Your task to perform on an android device: turn off sleep mode Image 0: 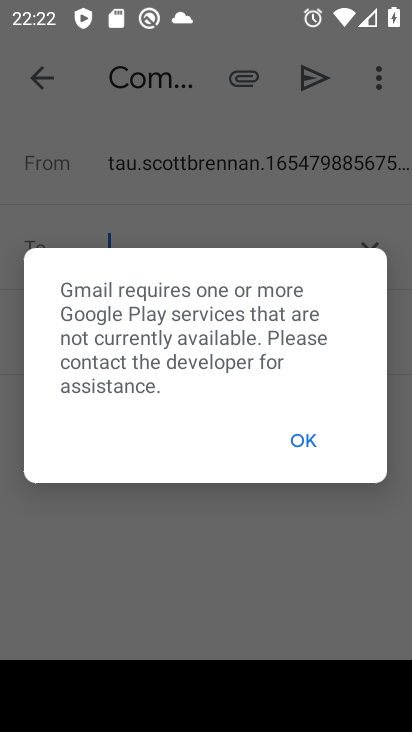
Step 0: press home button
Your task to perform on an android device: turn off sleep mode Image 1: 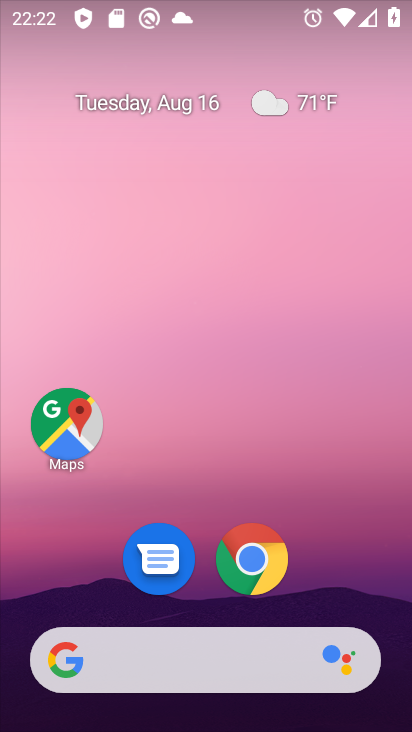
Step 1: drag from (180, 667) to (241, 63)
Your task to perform on an android device: turn off sleep mode Image 2: 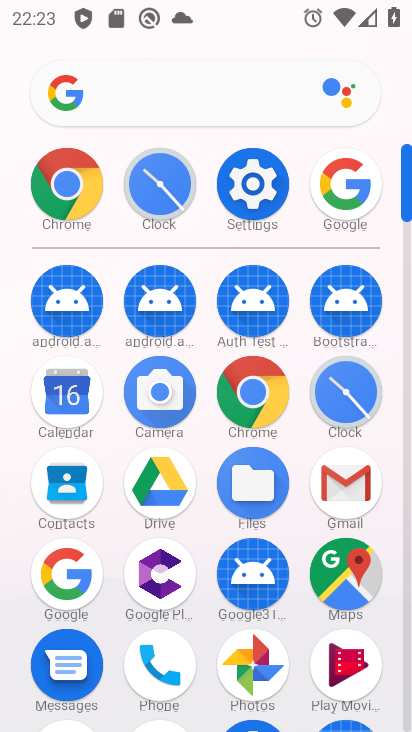
Step 2: click (252, 184)
Your task to perform on an android device: turn off sleep mode Image 3: 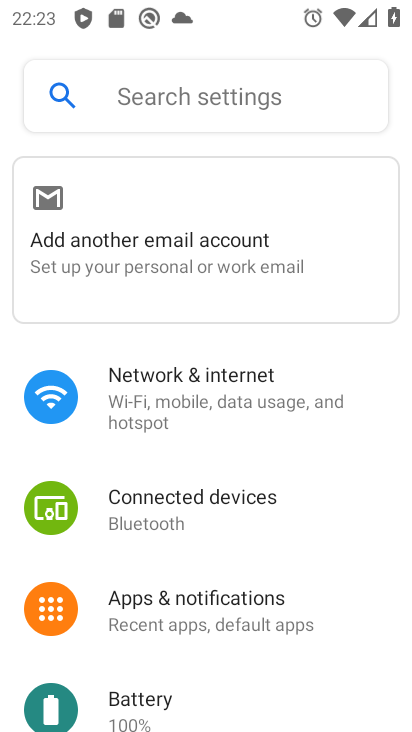
Step 3: drag from (196, 452) to (232, 368)
Your task to perform on an android device: turn off sleep mode Image 4: 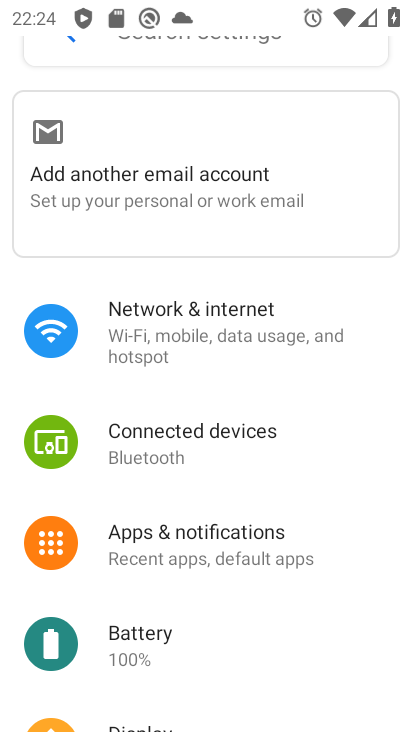
Step 4: drag from (208, 495) to (274, 314)
Your task to perform on an android device: turn off sleep mode Image 5: 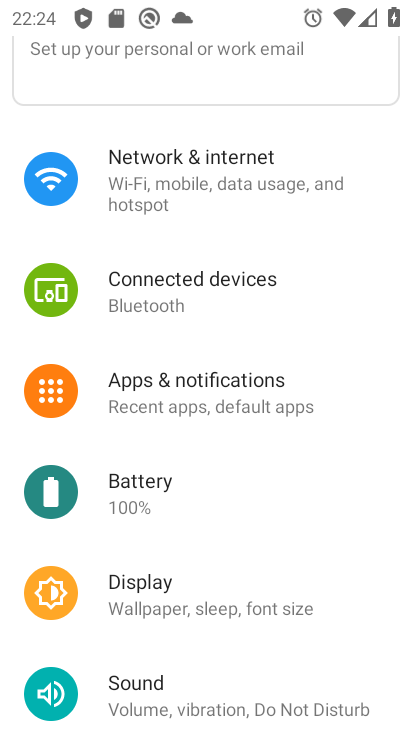
Step 5: drag from (198, 461) to (245, 365)
Your task to perform on an android device: turn off sleep mode Image 6: 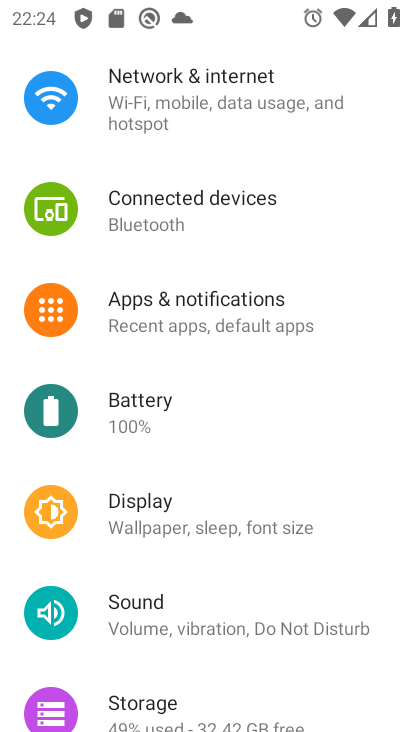
Step 6: drag from (193, 554) to (210, 454)
Your task to perform on an android device: turn off sleep mode Image 7: 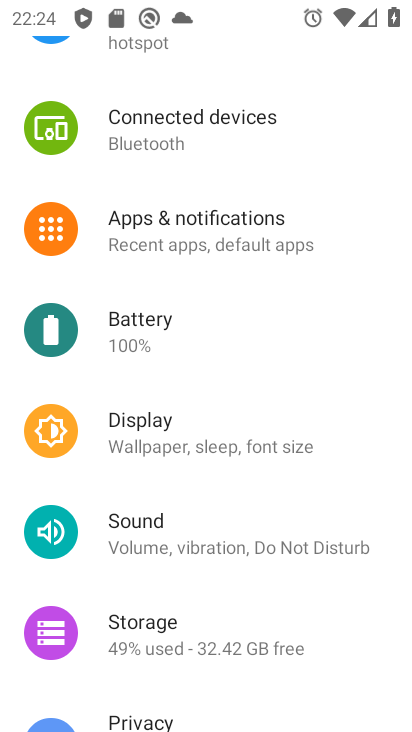
Step 7: drag from (154, 493) to (206, 328)
Your task to perform on an android device: turn off sleep mode Image 8: 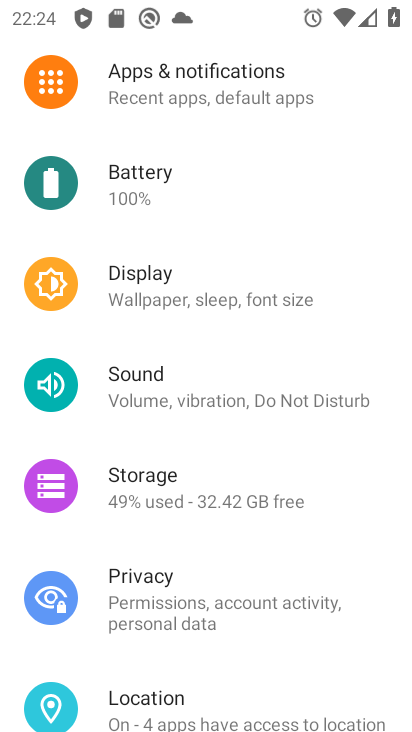
Step 8: drag from (122, 541) to (184, 453)
Your task to perform on an android device: turn off sleep mode Image 9: 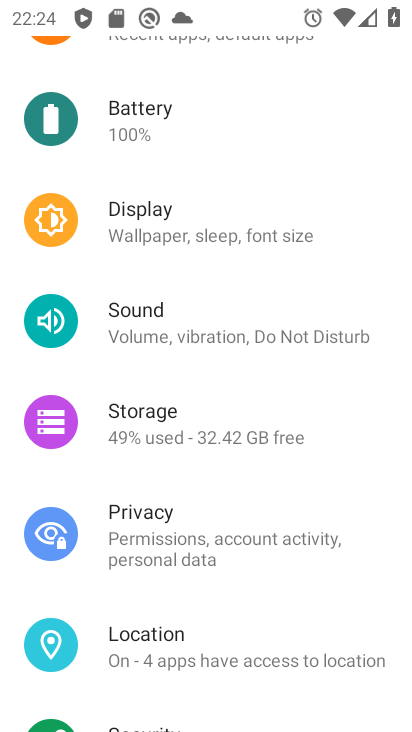
Step 9: click (196, 247)
Your task to perform on an android device: turn off sleep mode Image 10: 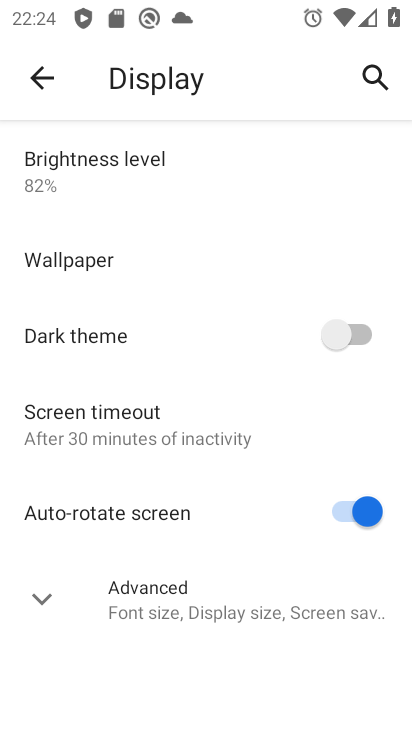
Step 10: task complete